Your task to perform on an android device: turn on the 24-hour format for clock Image 0: 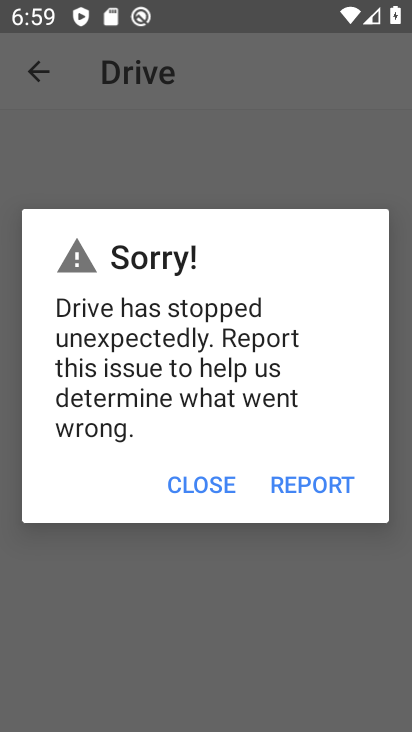
Step 0: press home button
Your task to perform on an android device: turn on the 24-hour format for clock Image 1: 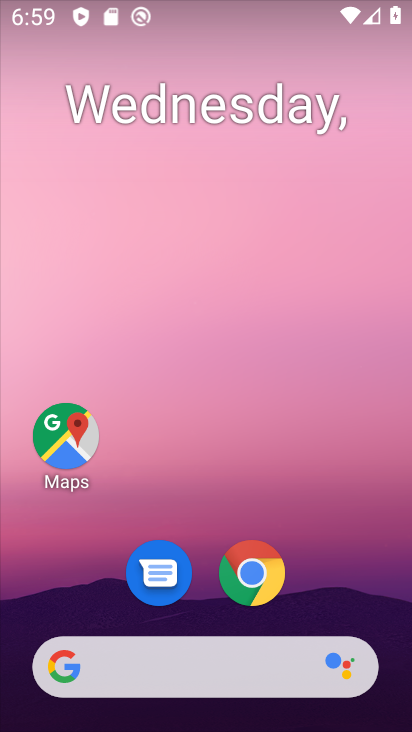
Step 1: drag from (206, 459) to (268, 10)
Your task to perform on an android device: turn on the 24-hour format for clock Image 2: 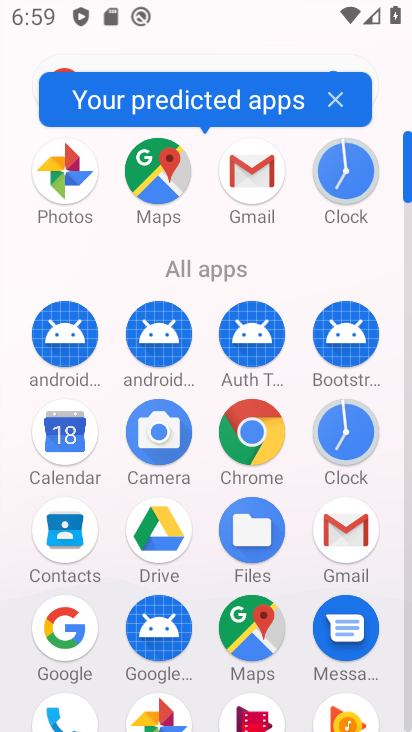
Step 2: click (338, 193)
Your task to perform on an android device: turn on the 24-hour format for clock Image 3: 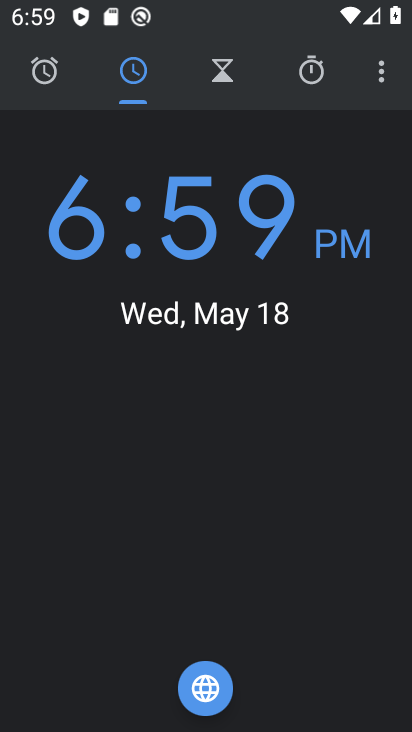
Step 3: click (375, 76)
Your task to perform on an android device: turn on the 24-hour format for clock Image 4: 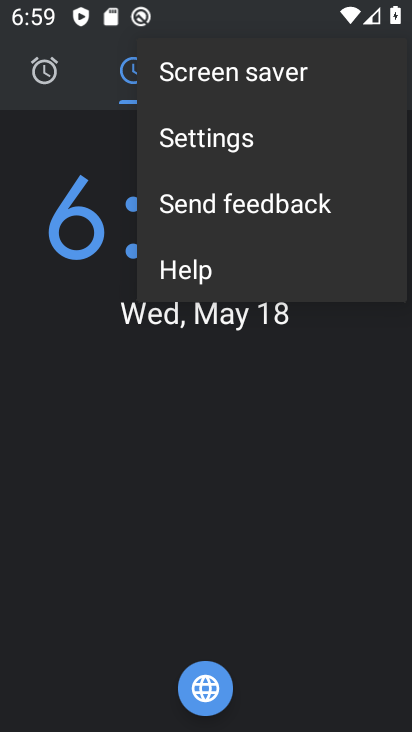
Step 4: click (237, 140)
Your task to perform on an android device: turn on the 24-hour format for clock Image 5: 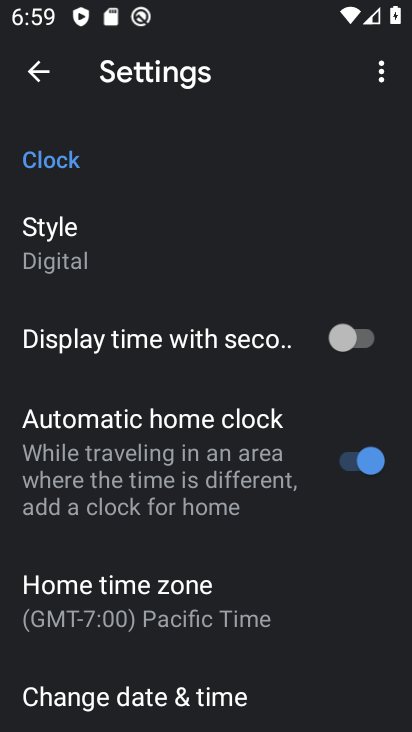
Step 5: drag from (291, 554) to (279, 297)
Your task to perform on an android device: turn on the 24-hour format for clock Image 6: 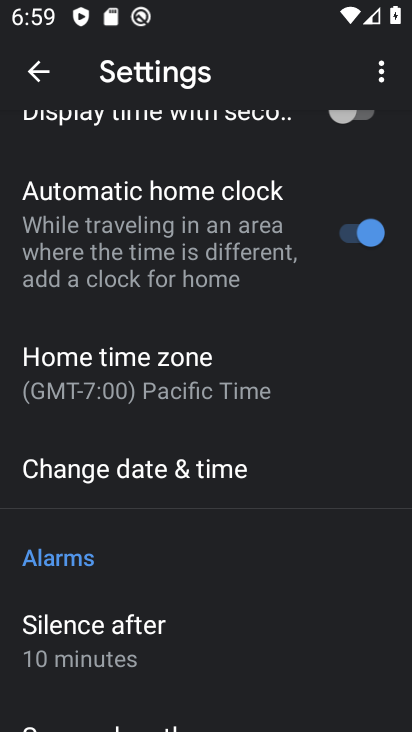
Step 6: click (214, 460)
Your task to perform on an android device: turn on the 24-hour format for clock Image 7: 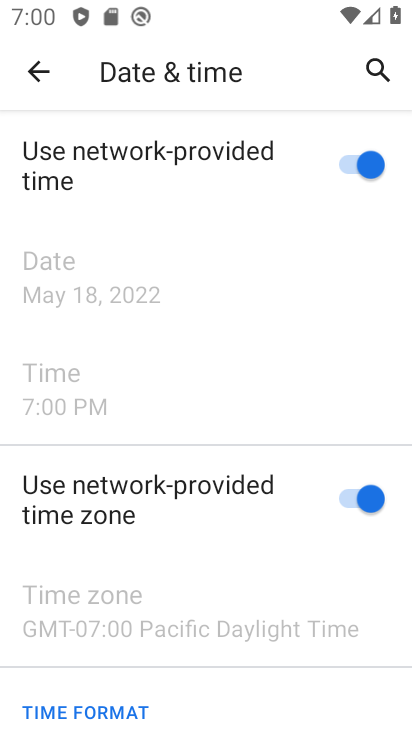
Step 7: drag from (175, 609) to (185, 224)
Your task to perform on an android device: turn on the 24-hour format for clock Image 8: 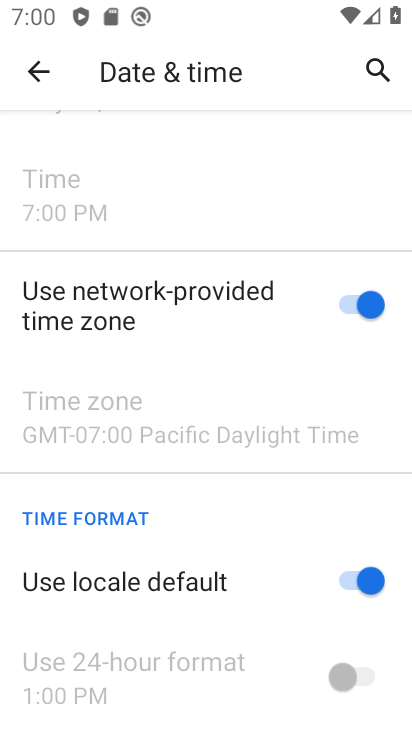
Step 8: click (354, 583)
Your task to perform on an android device: turn on the 24-hour format for clock Image 9: 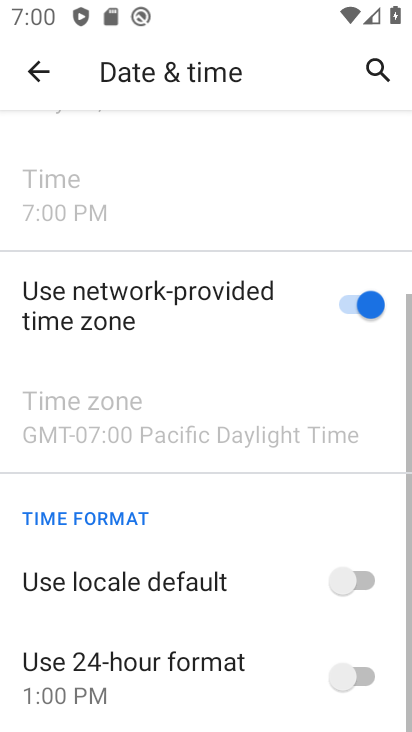
Step 9: click (363, 684)
Your task to perform on an android device: turn on the 24-hour format for clock Image 10: 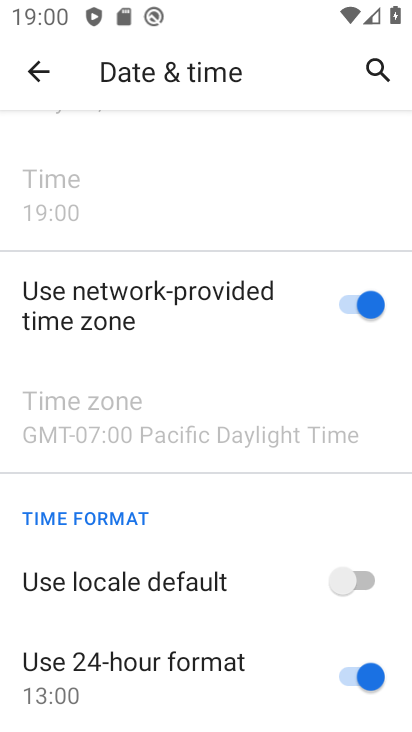
Step 10: task complete